Your task to perform on an android device: Open Google Maps Image 0: 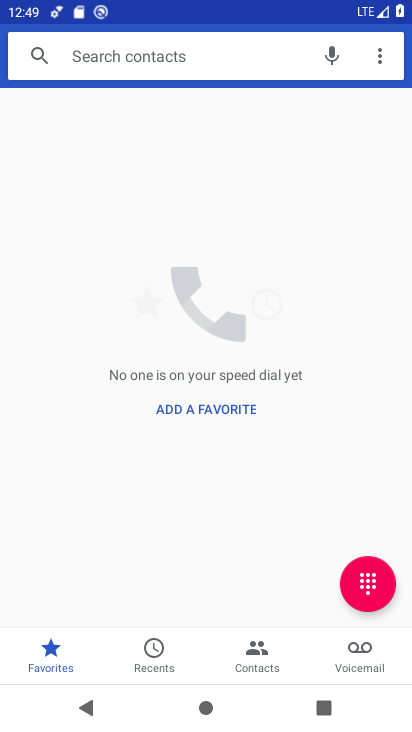
Step 0: press home button
Your task to perform on an android device: Open Google Maps Image 1: 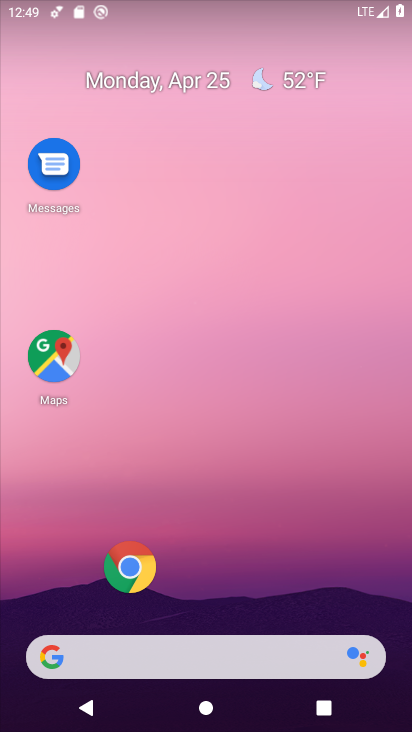
Step 1: drag from (296, 609) to (353, 166)
Your task to perform on an android device: Open Google Maps Image 2: 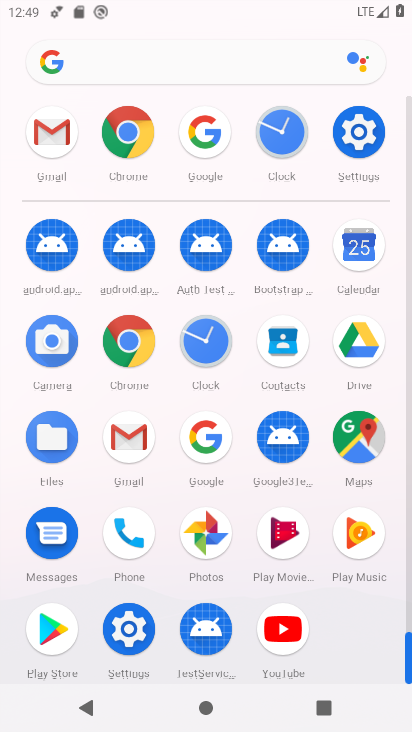
Step 2: click (379, 128)
Your task to perform on an android device: Open Google Maps Image 3: 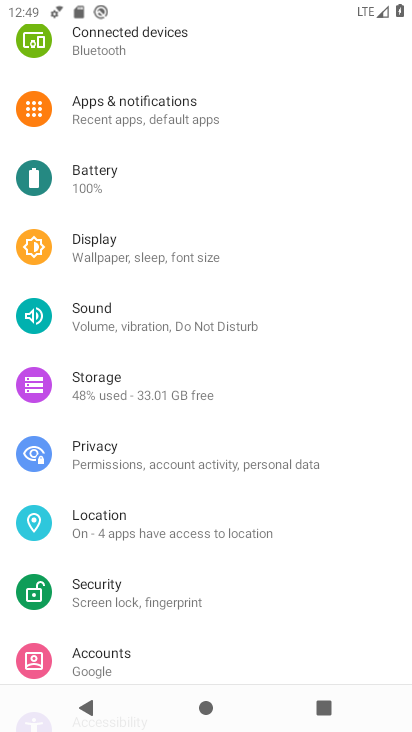
Step 3: press home button
Your task to perform on an android device: Open Google Maps Image 4: 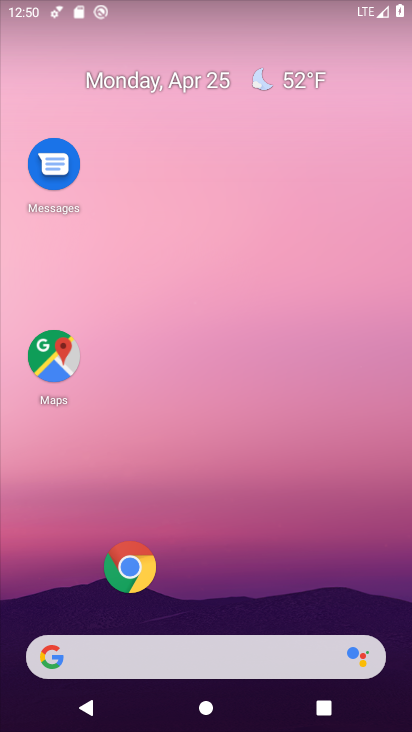
Step 4: drag from (256, 561) to (272, 155)
Your task to perform on an android device: Open Google Maps Image 5: 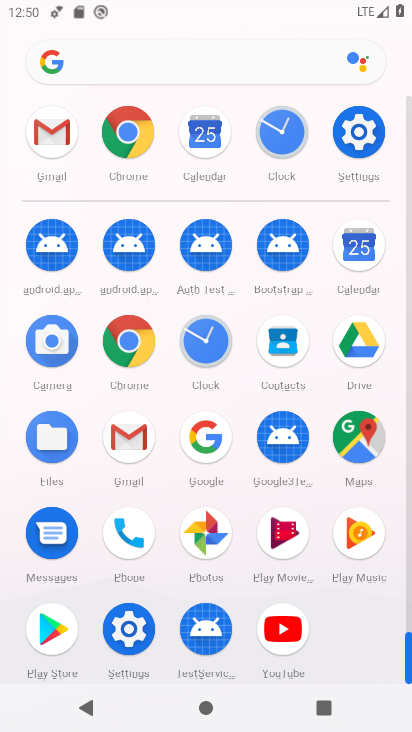
Step 5: click (360, 458)
Your task to perform on an android device: Open Google Maps Image 6: 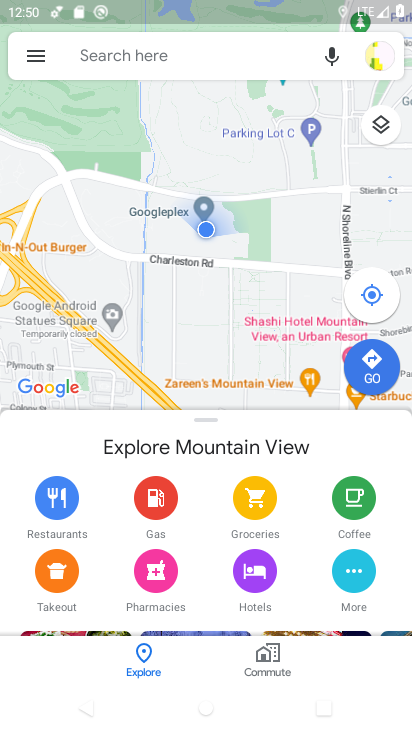
Step 6: task complete